Your task to perform on an android device: check data usage Image 0: 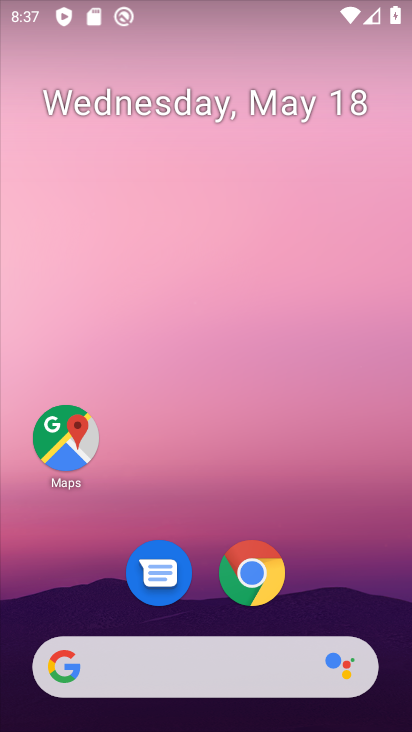
Step 0: drag from (189, 721) to (366, 8)
Your task to perform on an android device: check data usage Image 1: 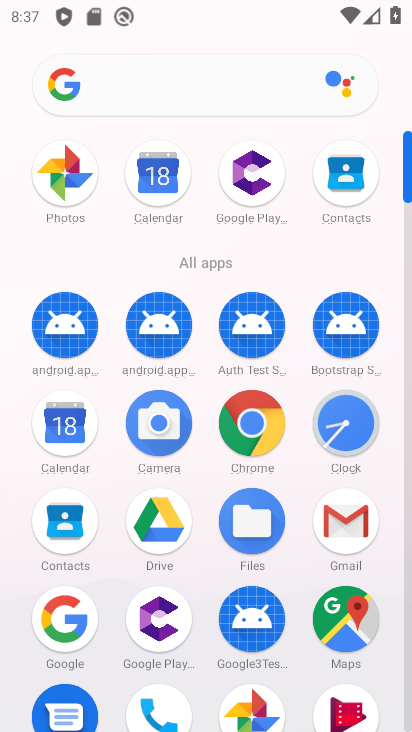
Step 1: drag from (193, 691) to (302, 35)
Your task to perform on an android device: check data usage Image 2: 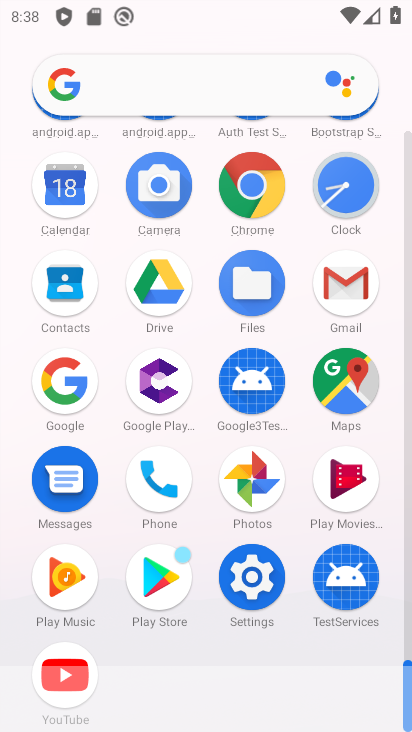
Step 2: click (268, 588)
Your task to perform on an android device: check data usage Image 3: 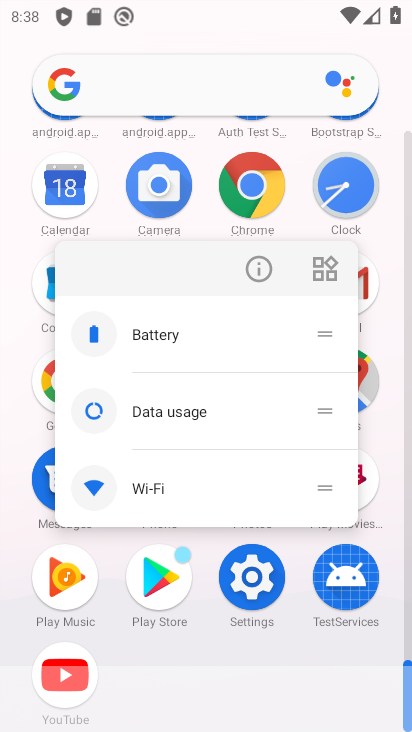
Step 3: click (252, 574)
Your task to perform on an android device: check data usage Image 4: 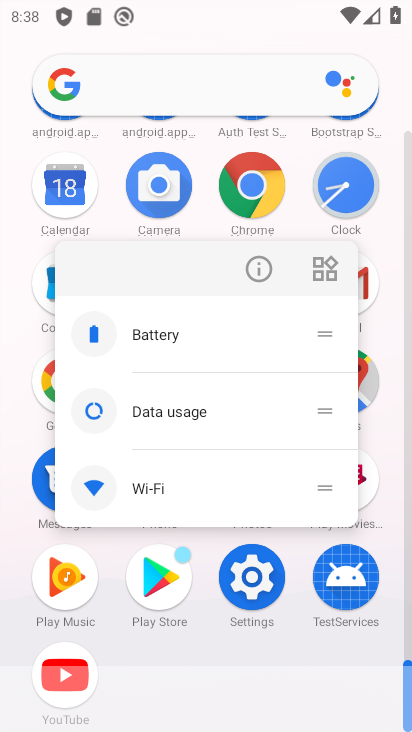
Step 4: click (252, 574)
Your task to perform on an android device: check data usage Image 5: 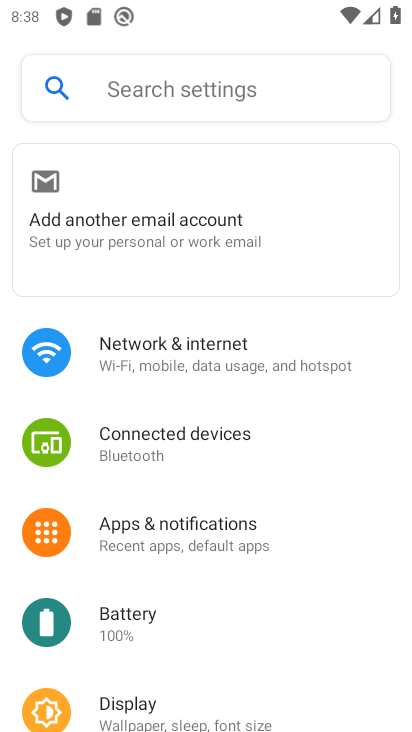
Step 5: click (242, 361)
Your task to perform on an android device: check data usage Image 6: 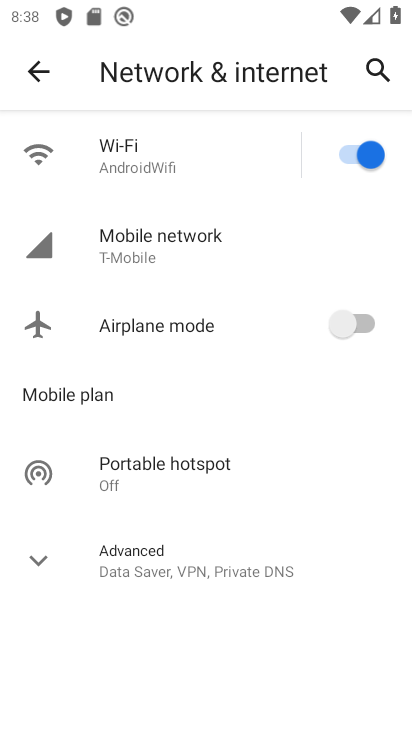
Step 6: click (165, 256)
Your task to perform on an android device: check data usage Image 7: 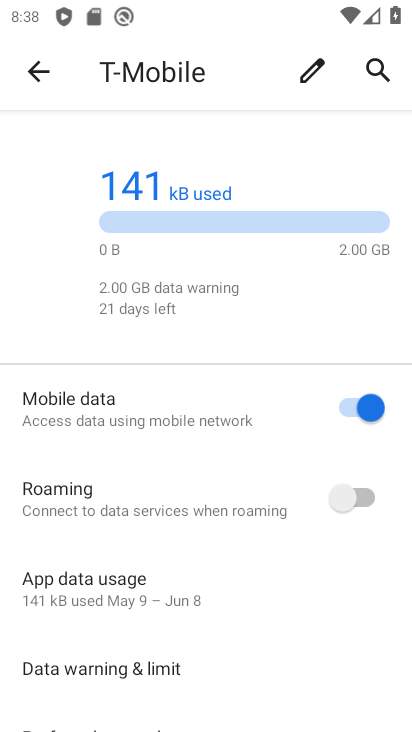
Step 7: task complete